Your task to perform on an android device: Go to notification settings Image 0: 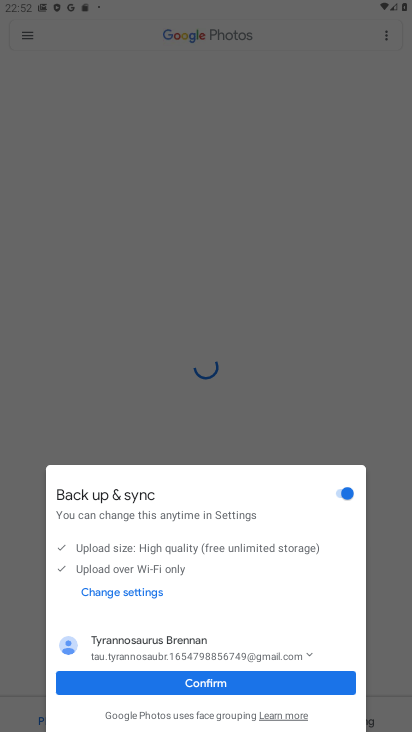
Step 0: press home button
Your task to perform on an android device: Go to notification settings Image 1: 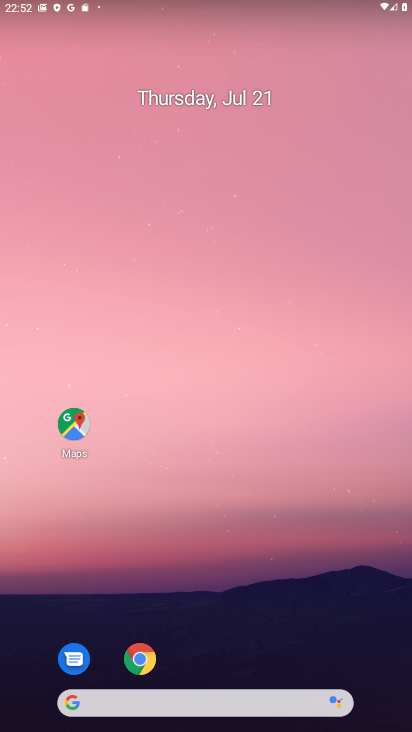
Step 1: drag from (198, 701) to (187, 121)
Your task to perform on an android device: Go to notification settings Image 2: 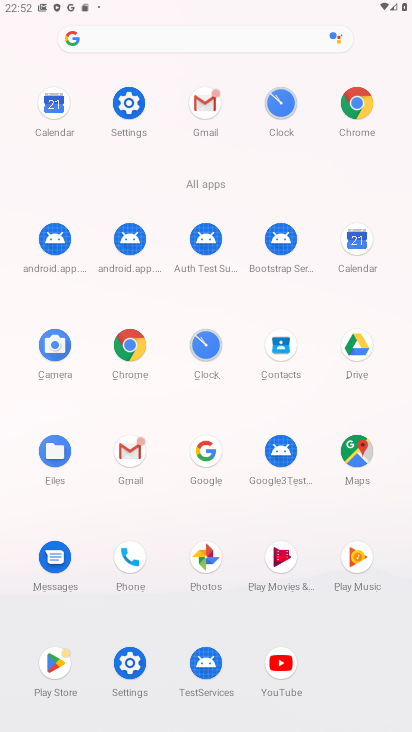
Step 2: click (127, 102)
Your task to perform on an android device: Go to notification settings Image 3: 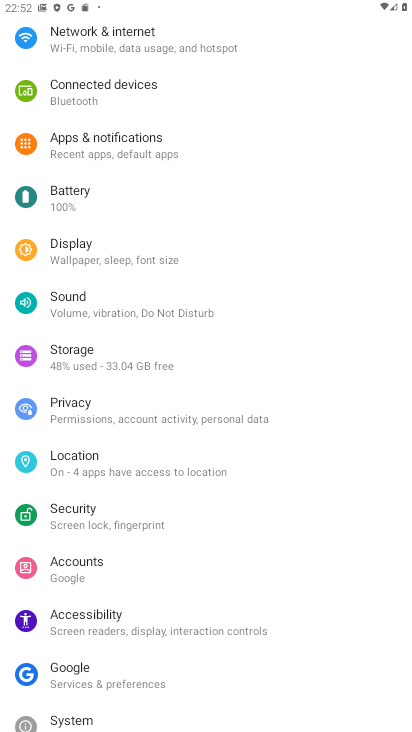
Step 3: click (119, 148)
Your task to perform on an android device: Go to notification settings Image 4: 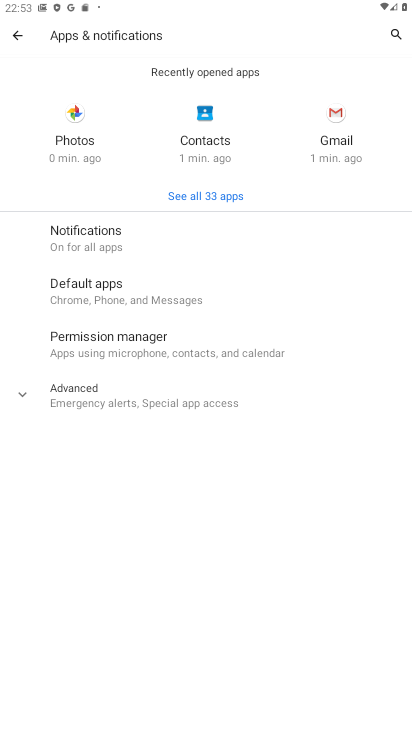
Step 4: click (99, 248)
Your task to perform on an android device: Go to notification settings Image 5: 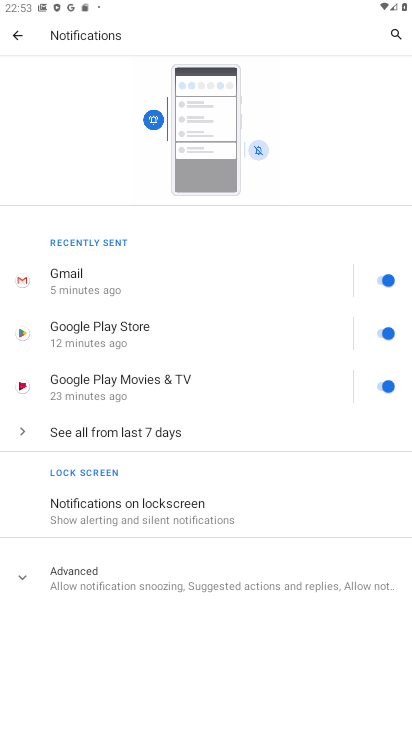
Step 5: task complete